Your task to perform on an android device: Open notification settings Image 0: 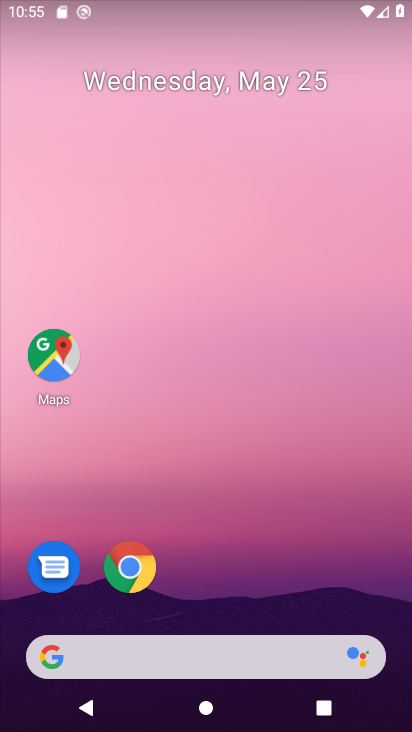
Step 0: drag from (255, 619) to (282, 9)
Your task to perform on an android device: Open notification settings Image 1: 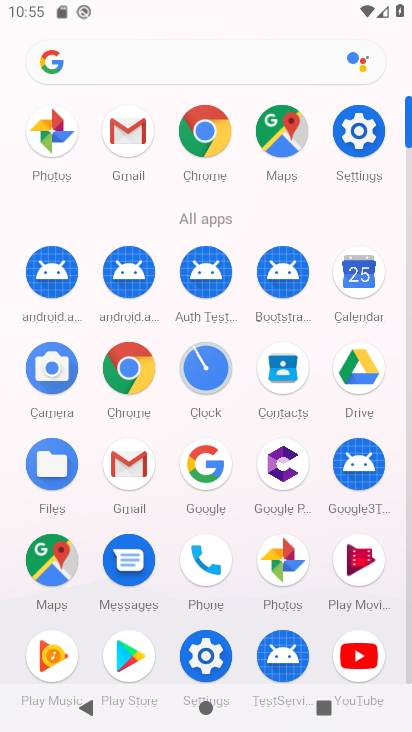
Step 1: click (359, 142)
Your task to perform on an android device: Open notification settings Image 2: 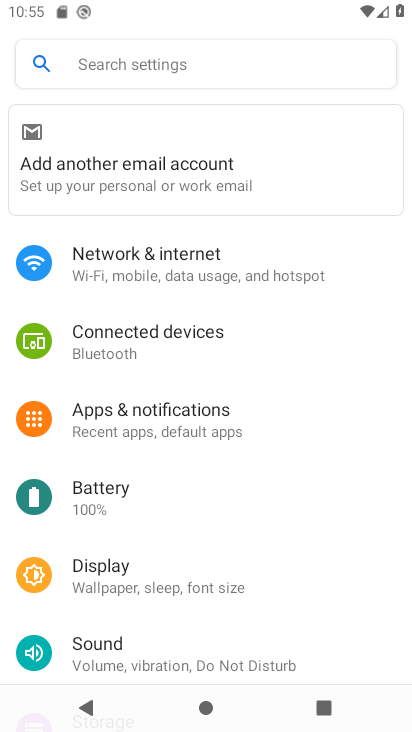
Step 2: click (175, 427)
Your task to perform on an android device: Open notification settings Image 3: 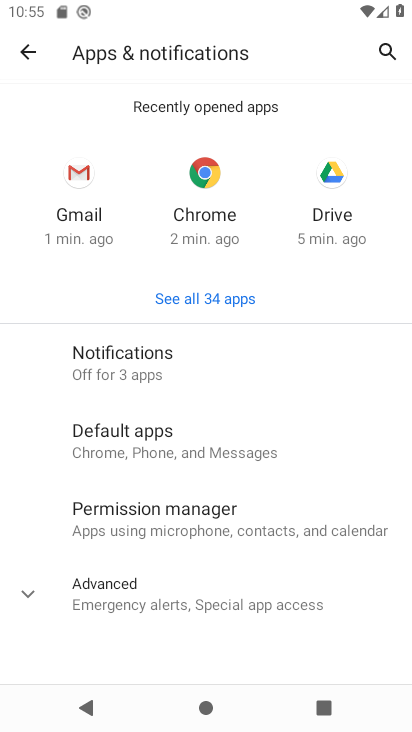
Step 3: task complete